Your task to perform on an android device: Show me recent news Image 0: 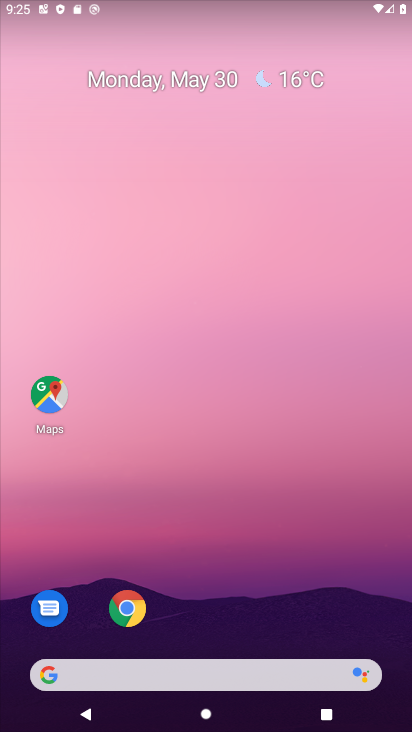
Step 0: drag from (29, 269) to (403, 259)
Your task to perform on an android device: Show me recent news Image 1: 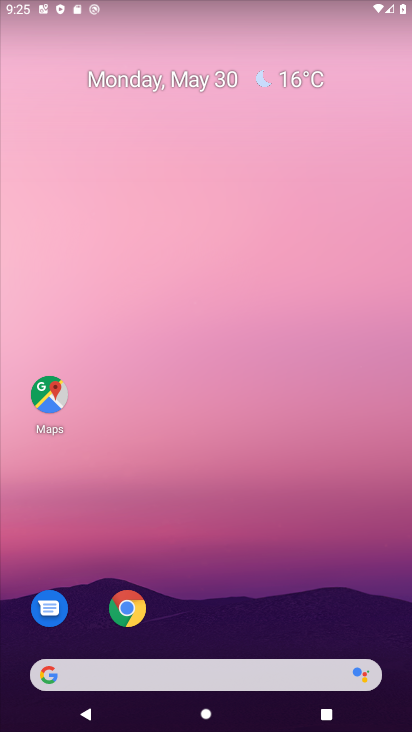
Step 1: task complete